Your task to perform on an android device: Add "acer predator" to the cart on amazon.com, then select checkout. Image 0: 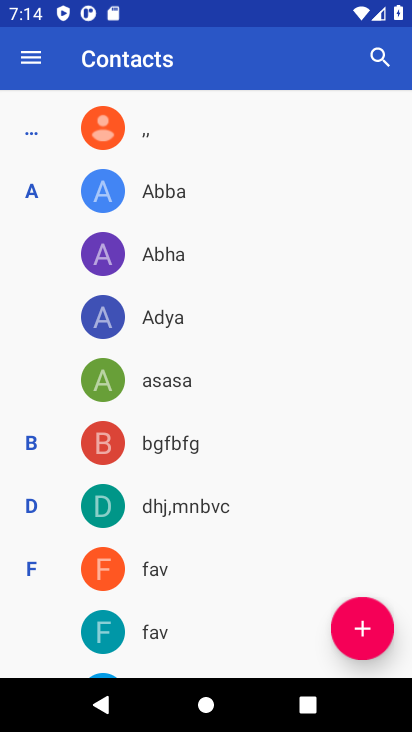
Step 0: press home button
Your task to perform on an android device: Add "acer predator" to the cart on amazon.com, then select checkout. Image 1: 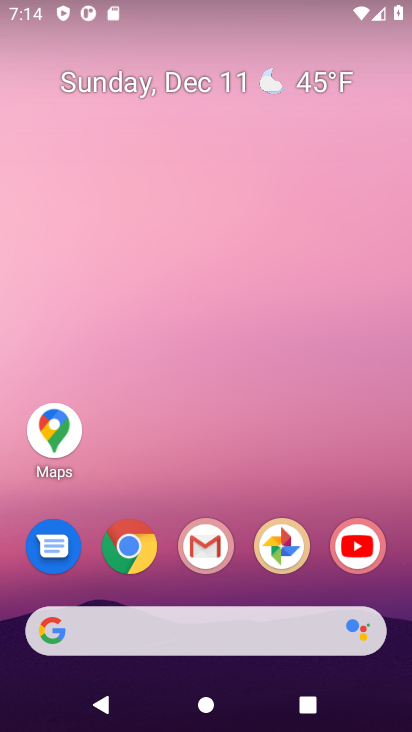
Step 1: click (131, 545)
Your task to perform on an android device: Add "acer predator" to the cart on amazon.com, then select checkout. Image 2: 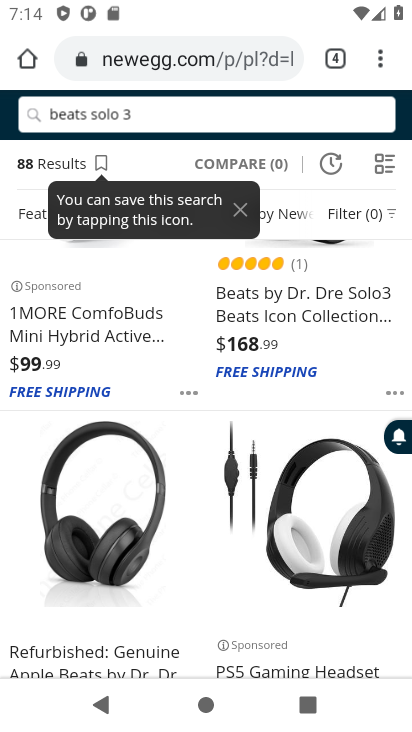
Step 2: click (167, 65)
Your task to perform on an android device: Add "acer predator" to the cart on amazon.com, then select checkout. Image 3: 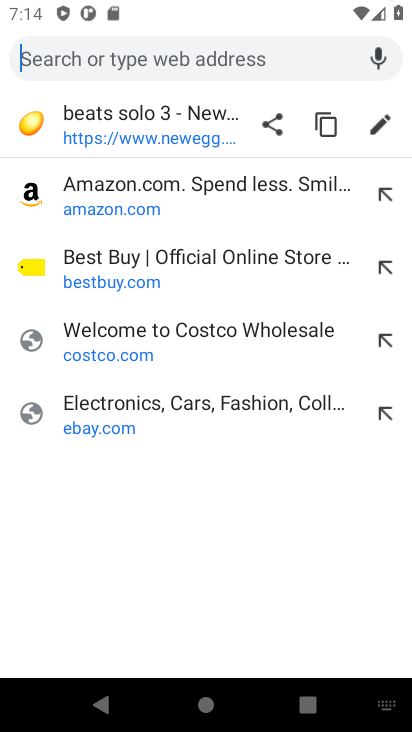
Step 3: click (114, 201)
Your task to perform on an android device: Add "acer predator" to the cart on amazon.com, then select checkout. Image 4: 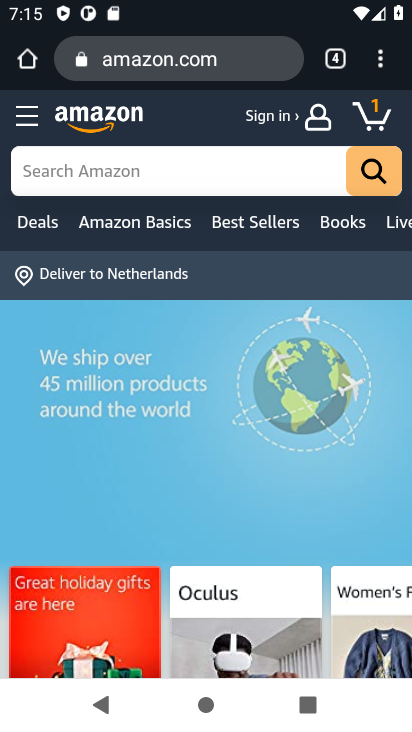
Step 4: click (72, 178)
Your task to perform on an android device: Add "acer predator" to the cart on amazon.com, then select checkout. Image 5: 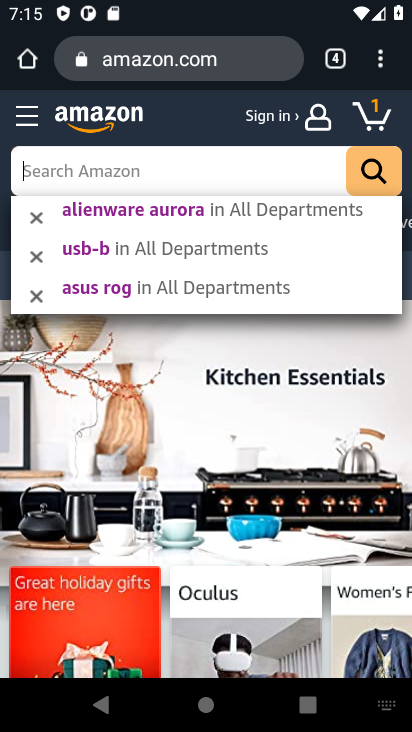
Step 5: type "acer predator"
Your task to perform on an android device: Add "acer predator" to the cart on amazon.com, then select checkout. Image 6: 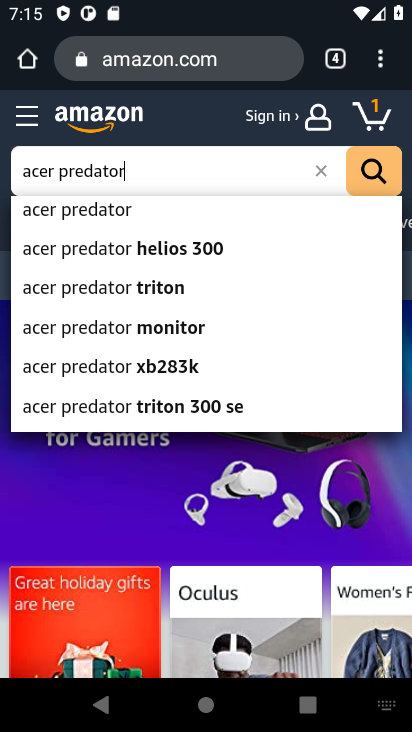
Step 6: click (110, 206)
Your task to perform on an android device: Add "acer predator" to the cart on amazon.com, then select checkout. Image 7: 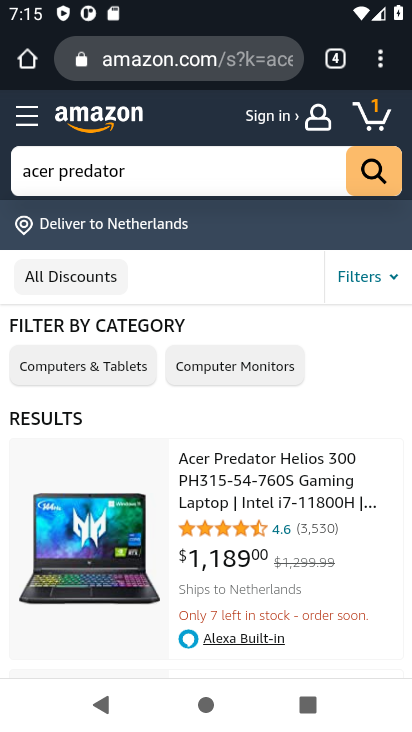
Step 7: drag from (107, 531) to (119, 310)
Your task to perform on an android device: Add "acer predator" to the cart on amazon.com, then select checkout. Image 8: 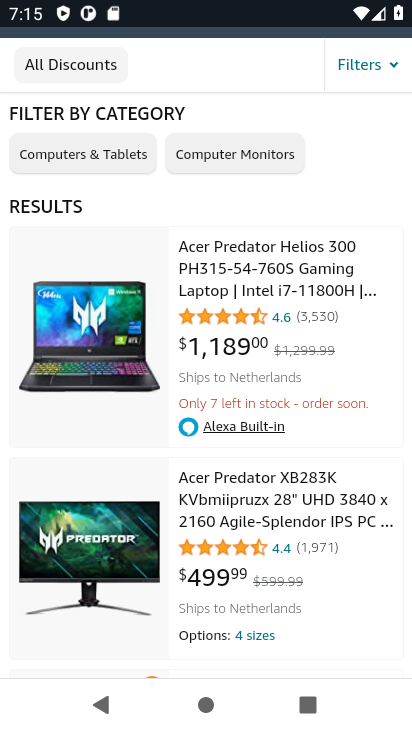
Step 8: click (257, 286)
Your task to perform on an android device: Add "acer predator" to the cart on amazon.com, then select checkout. Image 9: 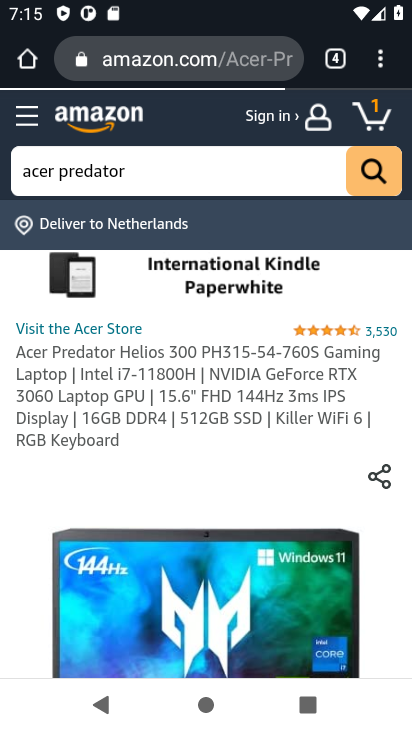
Step 9: drag from (224, 542) to (216, 122)
Your task to perform on an android device: Add "acer predator" to the cart on amazon.com, then select checkout. Image 10: 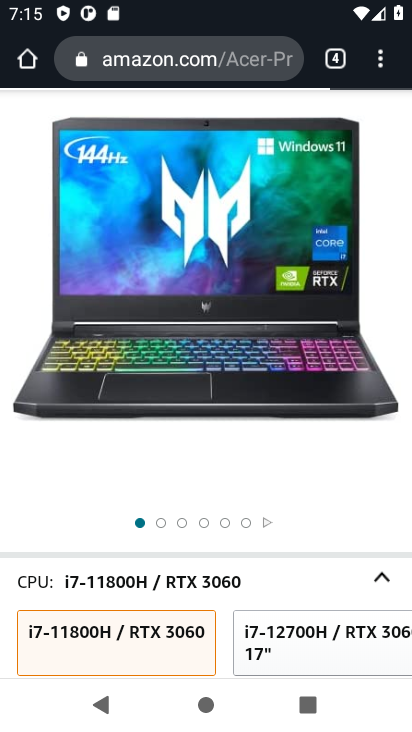
Step 10: drag from (205, 460) to (204, 152)
Your task to perform on an android device: Add "acer predator" to the cart on amazon.com, then select checkout. Image 11: 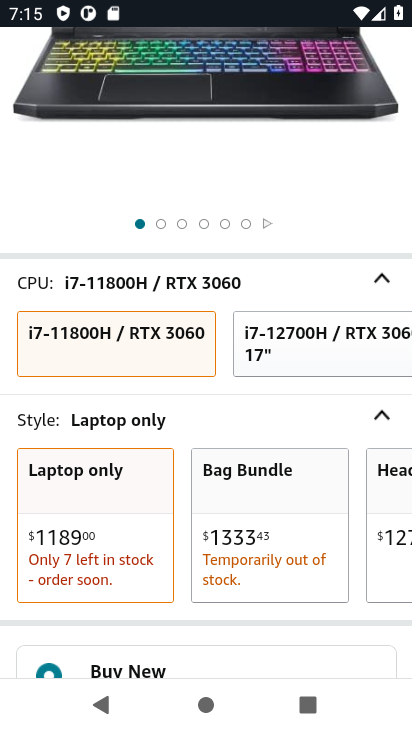
Step 11: drag from (191, 487) to (215, 146)
Your task to perform on an android device: Add "acer predator" to the cart on amazon.com, then select checkout. Image 12: 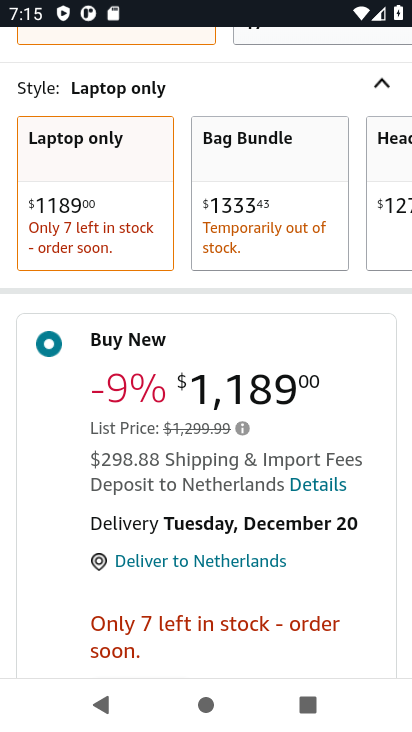
Step 12: drag from (147, 511) to (149, 184)
Your task to perform on an android device: Add "acer predator" to the cart on amazon.com, then select checkout. Image 13: 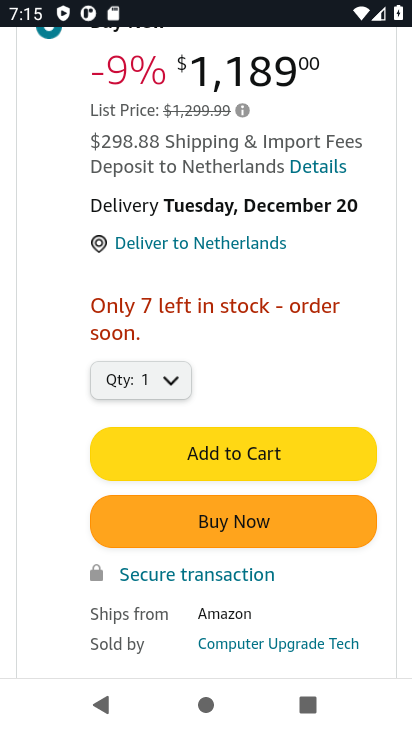
Step 13: click (189, 455)
Your task to perform on an android device: Add "acer predator" to the cart on amazon.com, then select checkout. Image 14: 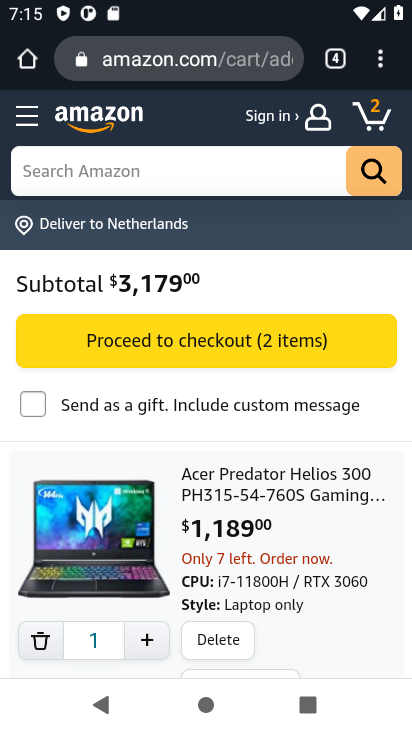
Step 14: click (184, 346)
Your task to perform on an android device: Add "acer predator" to the cart on amazon.com, then select checkout. Image 15: 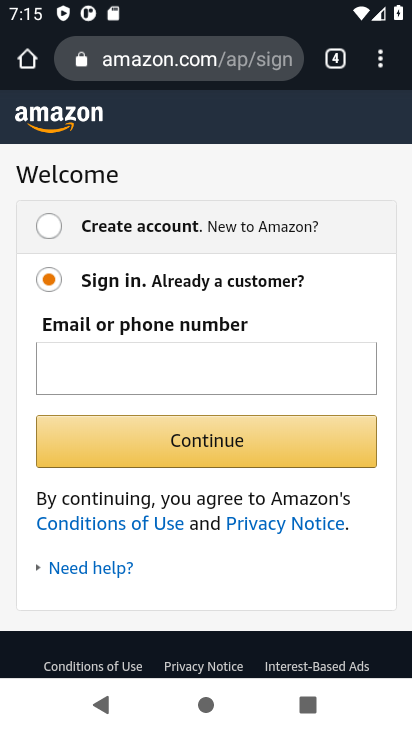
Step 15: task complete